Your task to perform on an android device: Go to battery settings Image 0: 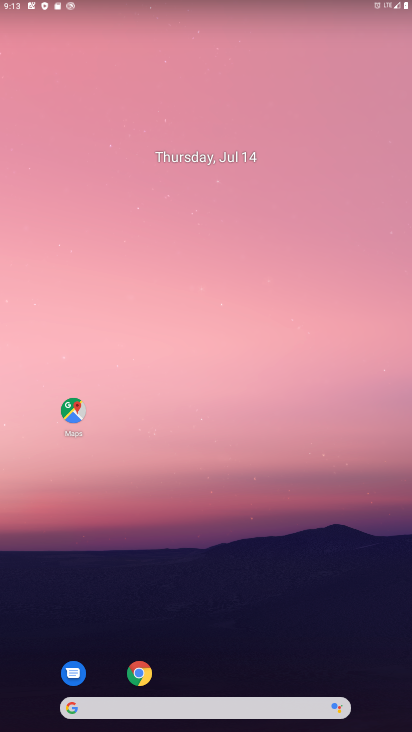
Step 0: drag from (237, 697) to (246, 213)
Your task to perform on an android device: Go to battery settings Image 1: 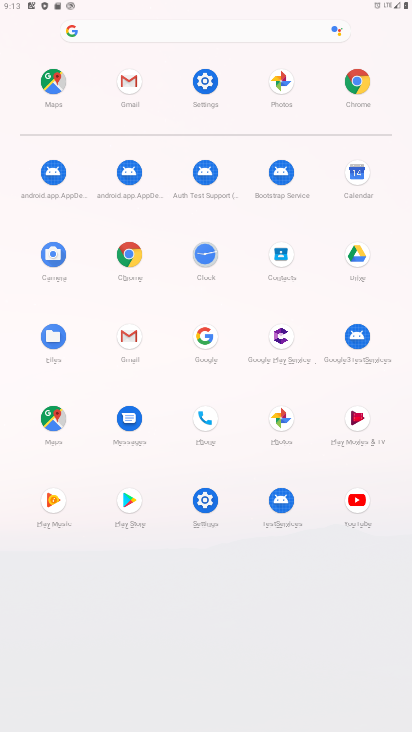
Step 1: click (207, 502)
Your task to perform on an android device: Go to battery settings Image 2: 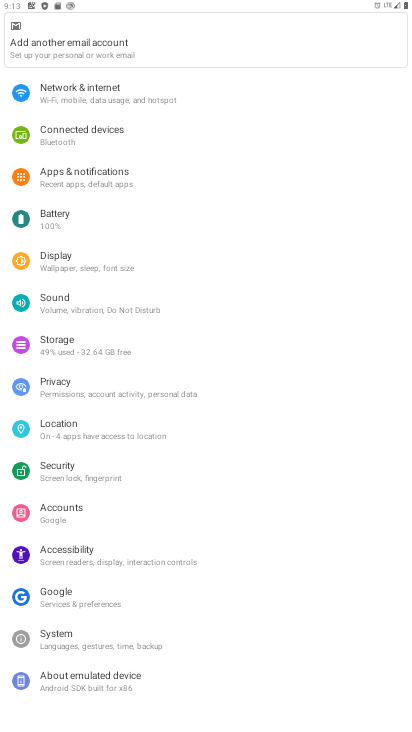
Step 2: click (64, 225)
Your task to perform on an android device: Go to battery settings Image 3: 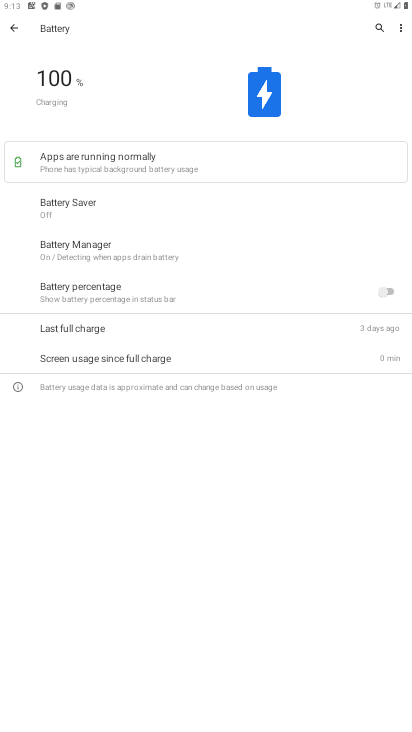
Step 3: task complete